Your task to perform on an android device: turn on bluetooth scan Image 0: 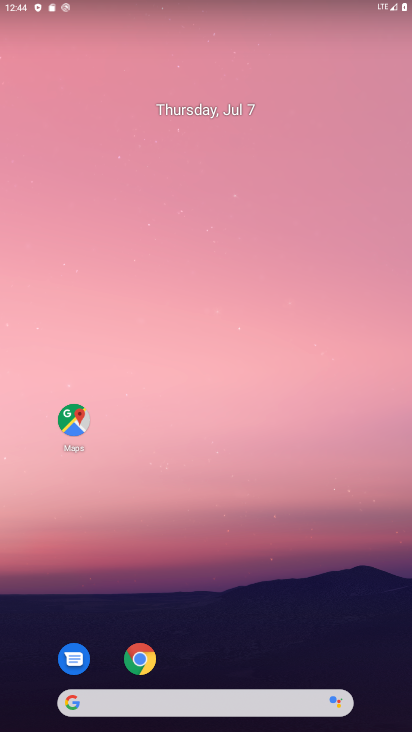
Step 0: drag from (267, 592) to (325, 66)
Your task to perform on an android device: turn on bluetooth scan Image 1: 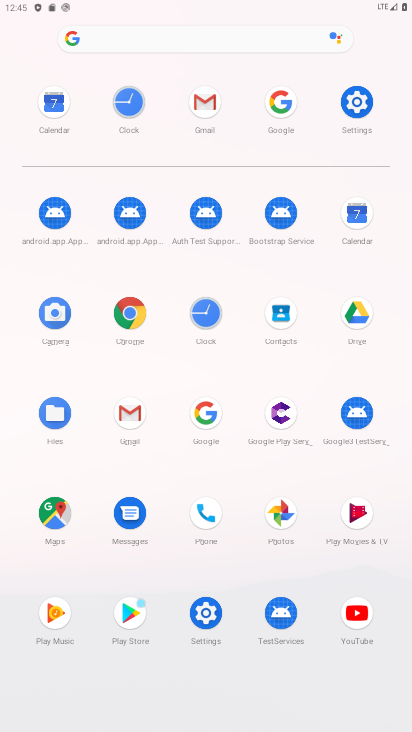
Step 1: click (363, 111)
Your task to perform on an android device: turn on bluetooth scan Image 2: 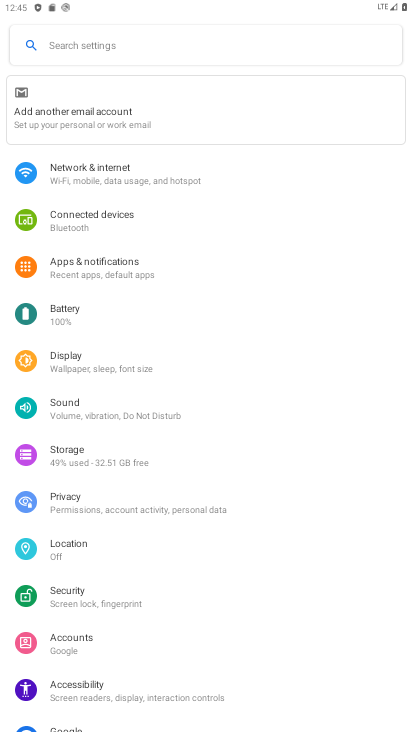
Step 2: click (63, 541)
Your task to perform on an android device: turn on bluetooth scan Image 3: 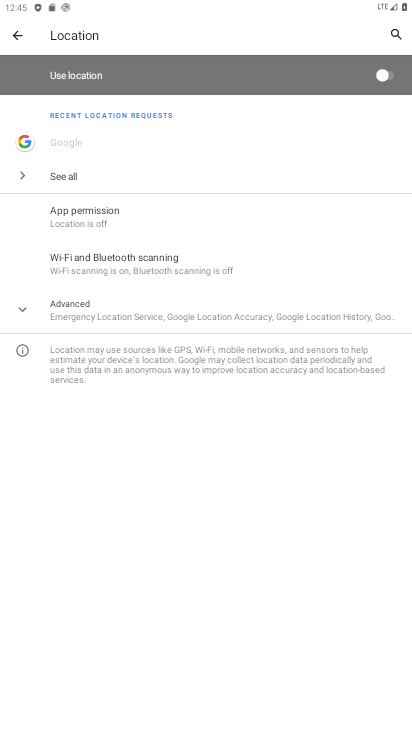
Step 3: click (120, 255)
Your task to perform on an android device: turn on bluetooth scan Image 4: 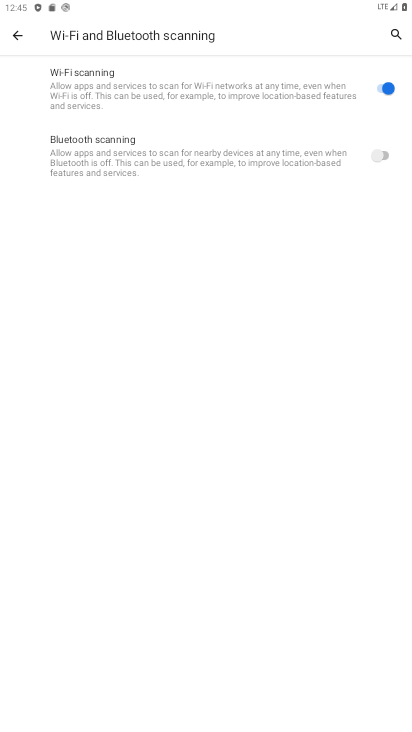
Step 4: click (378, 154)
Your task to perform on an android device: turn on bluetooth scan Image 5: 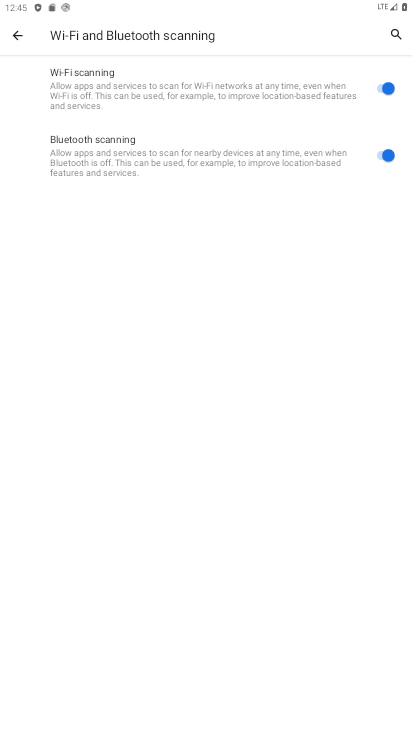
Step 5: task complete